Your task to perform on an android device: Search for pizza restaurants on Maps Image 0: 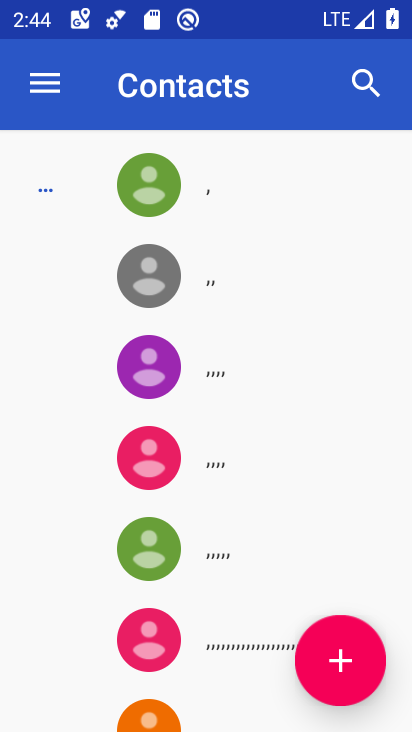
Step 0: press home button
Your task to perform on an android device: Search for pizza restaurants on Maps Image 1: 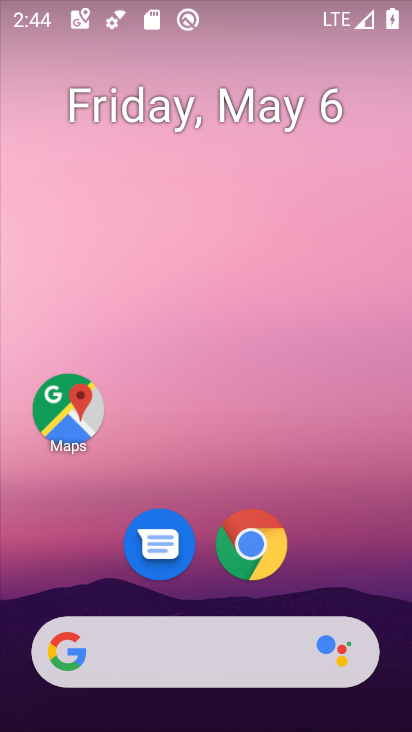
Step 1: click (80, 396)
Your task to perform on an android device: Search for pizza restaurants on Maps Image 2: 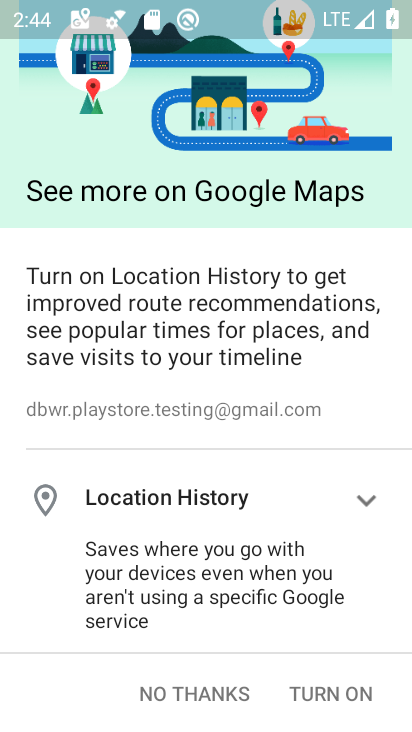
Step 2: press back button
Your task to perform on an android device: Search for pizza restaurants on Maps Image 3: 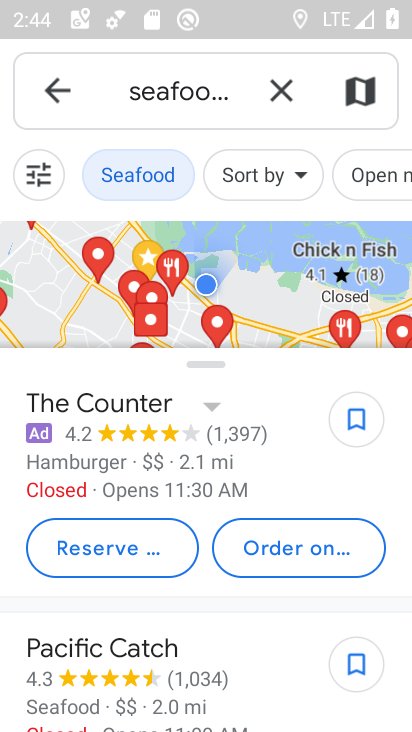
Step 3: click (280, 88)
Your task to perform on an android device: Search for pizza restaurants on Maps Image 4: 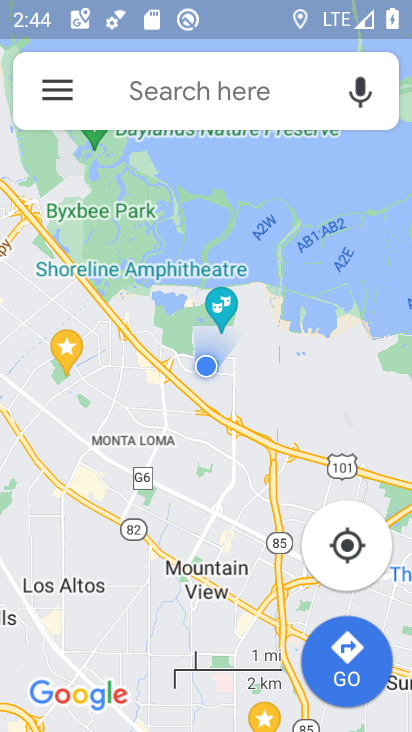
Step 4: click (194, 86)
Your task to perform on an android device: Search for pizza restaurants on Maps Image 5: 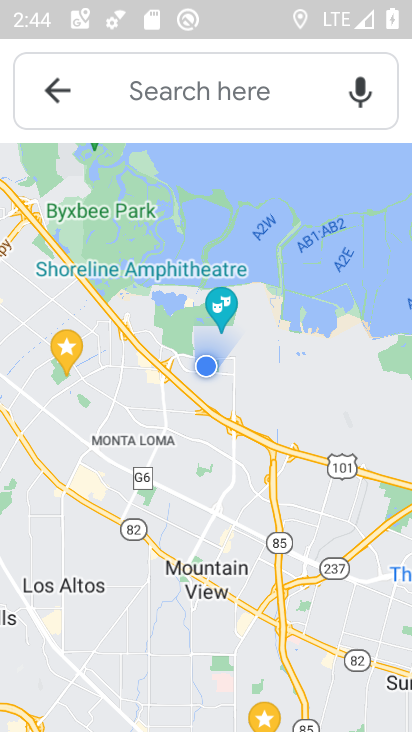
Step 5: click (191, 83)
Your task to perform on an android device: Search for pizza restaurants on Maps Image 6: 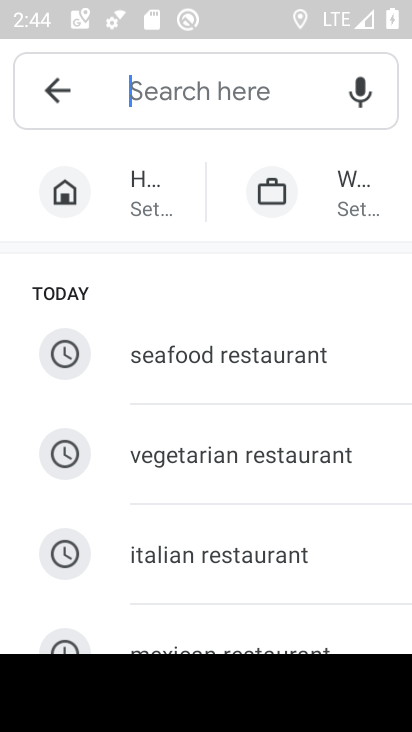
Step 6: type "pizza restaurants"
Your task to perform on an android device: Search for pizza restaurants on Maps Image 7: 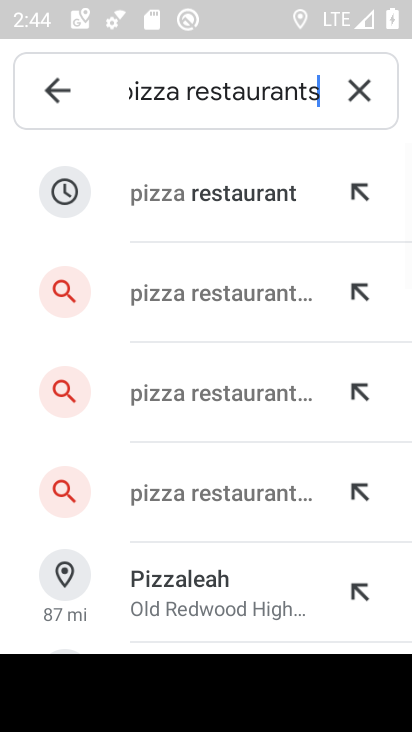
Step 7: click (220, 200)
Your task to perform on an android device: Search for pizza restaurants on Maps Image 8: 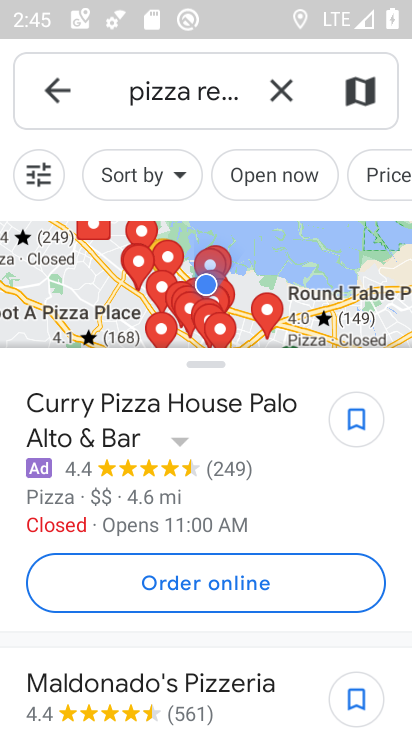
Step 8: task complete